Your task to perform on an android device: Add "razer thresher" to the cart on bestbuy Image 0: 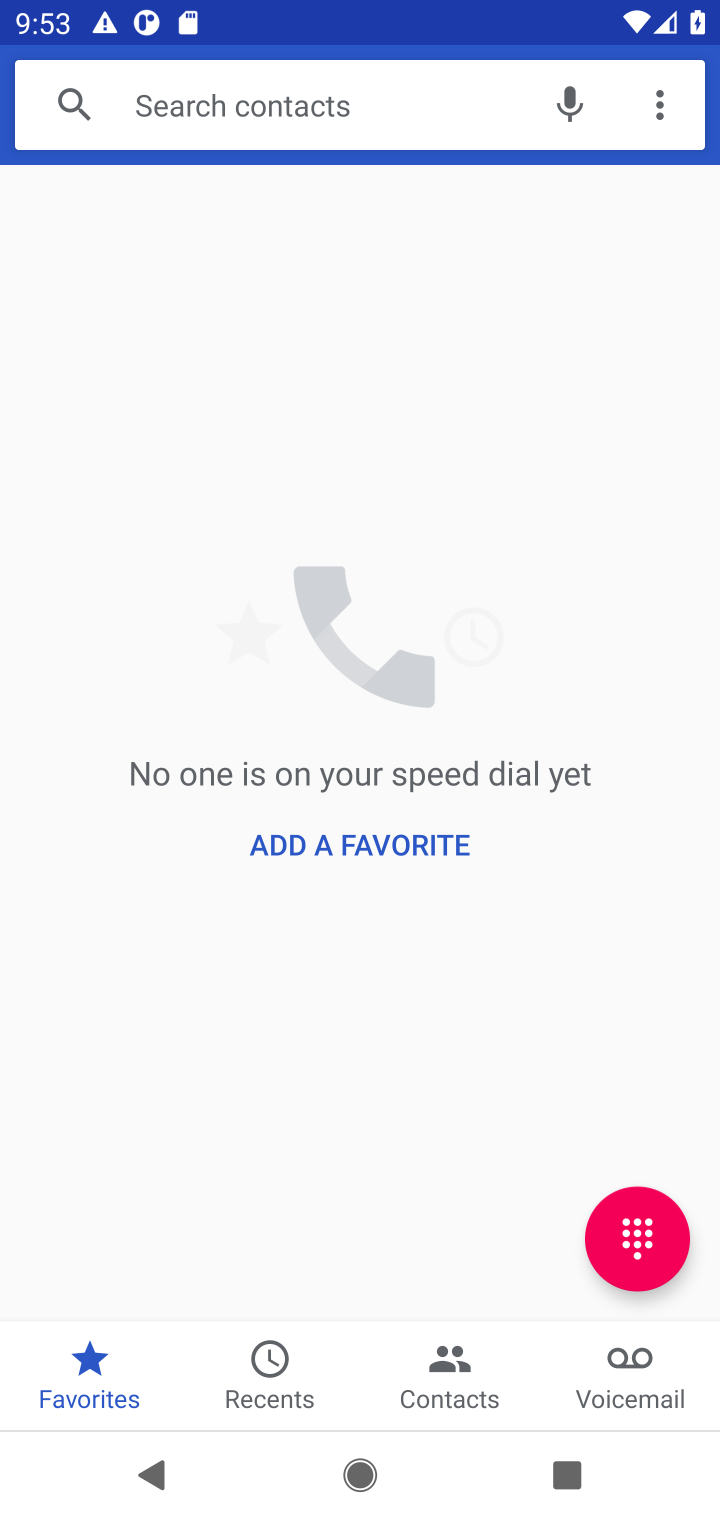
Step 0: press home button
Your task to perform on an android device: Add "razer thresher" to the cart on bestbuy Image 1: 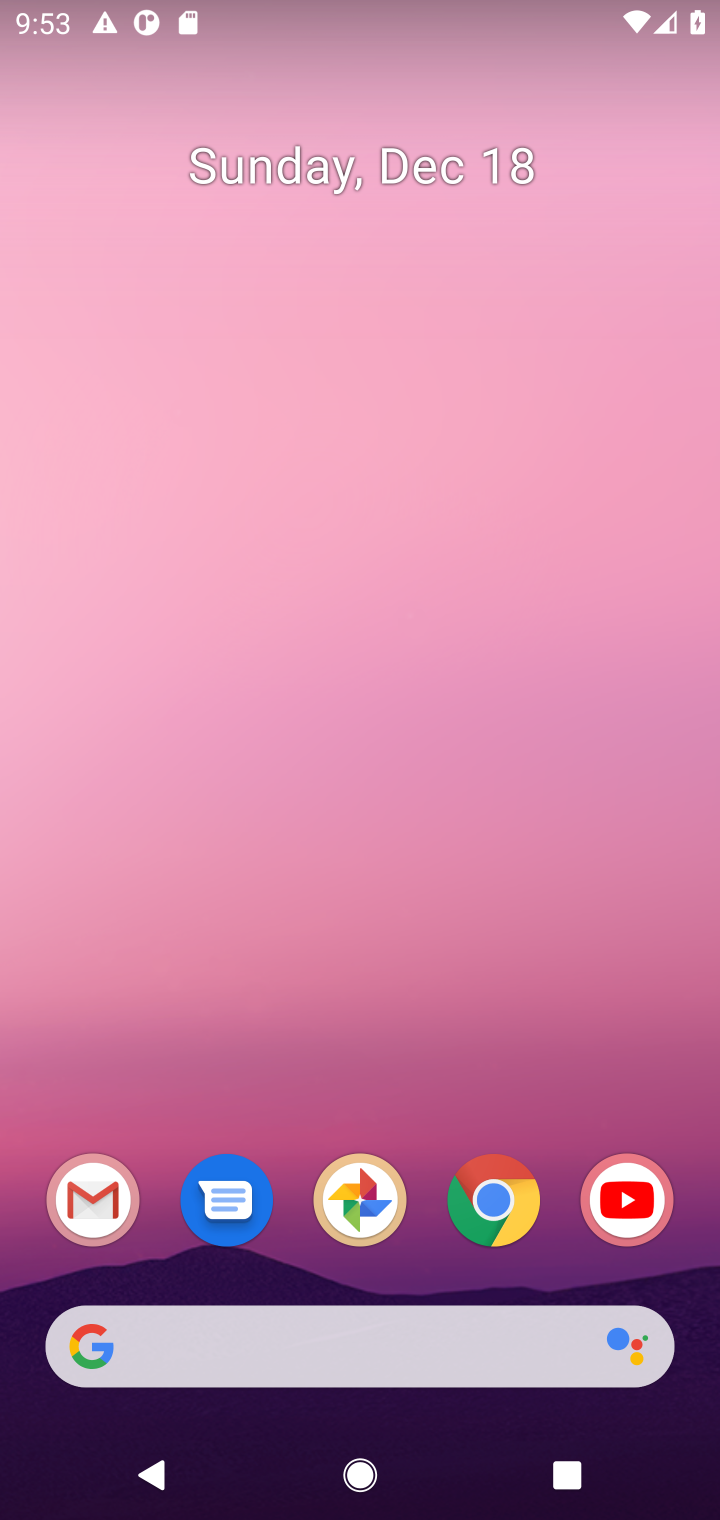
Step 1: click (495, 1197)
Your task to perform on an android device: Add "razer thresher" to the cart on bestbuy Image 2: 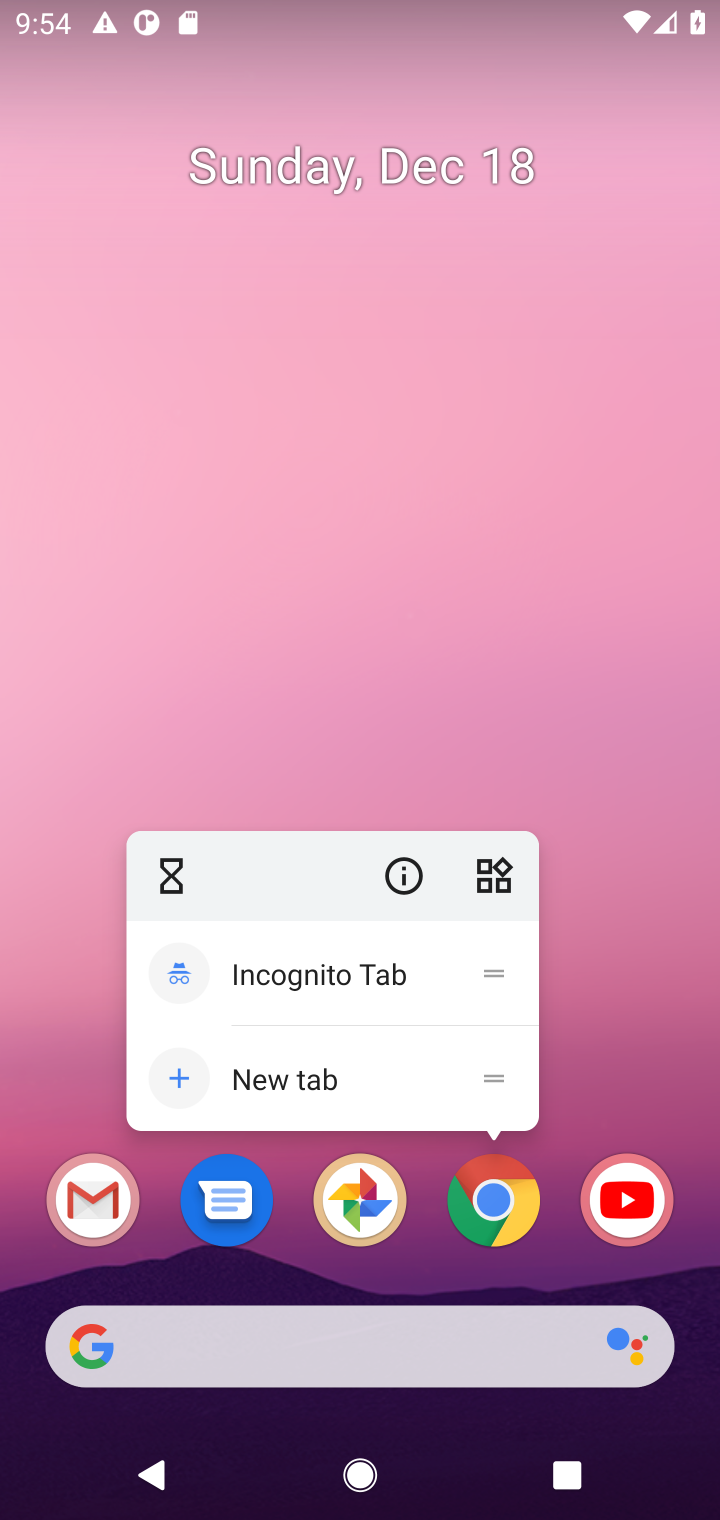
Step 2: click (495, 1197)
Your task to perform on an android device: Add "razer thresher" to the cart on bestbuy Image 3: 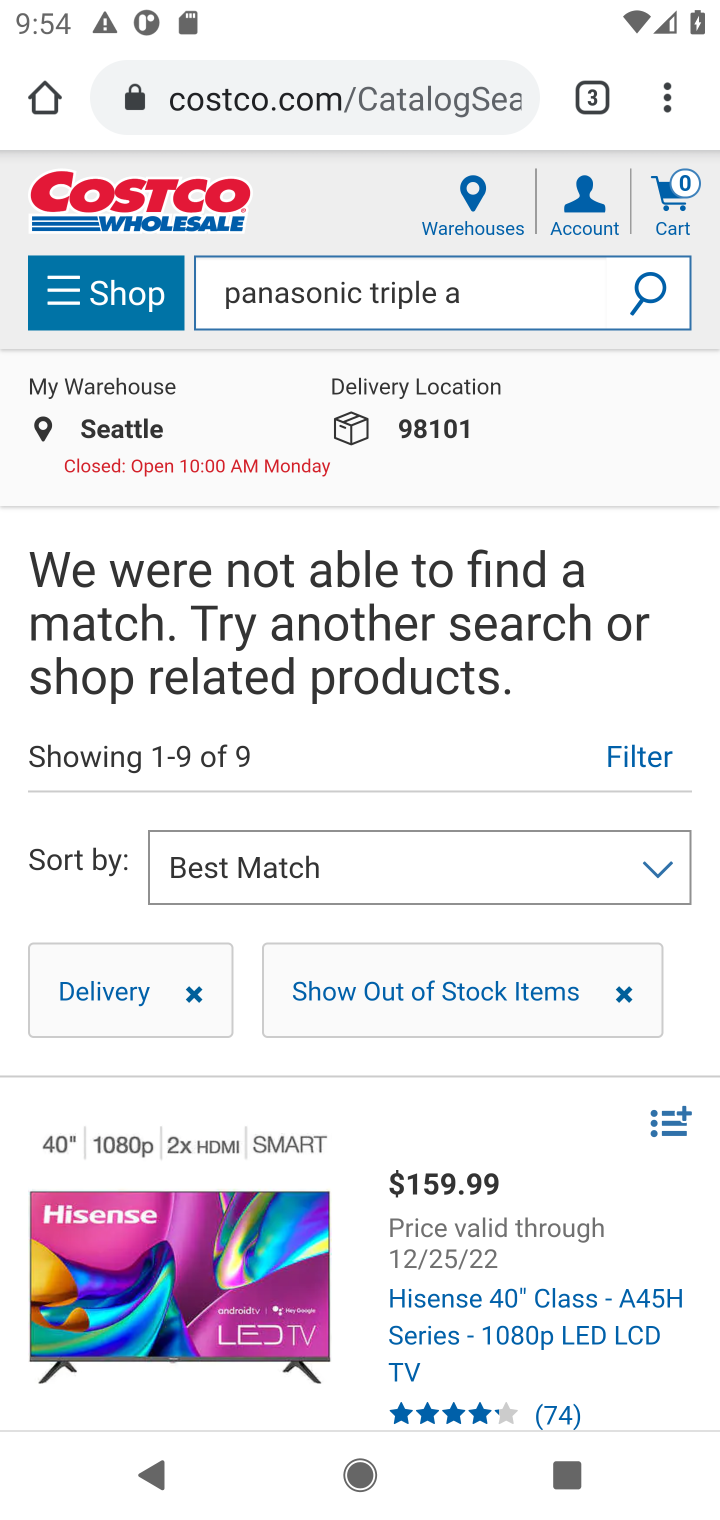
Step 3: click (255, 107)
Your task to perform on an android device: Add "razer thresher" to the cart on bestbuy Image 4: 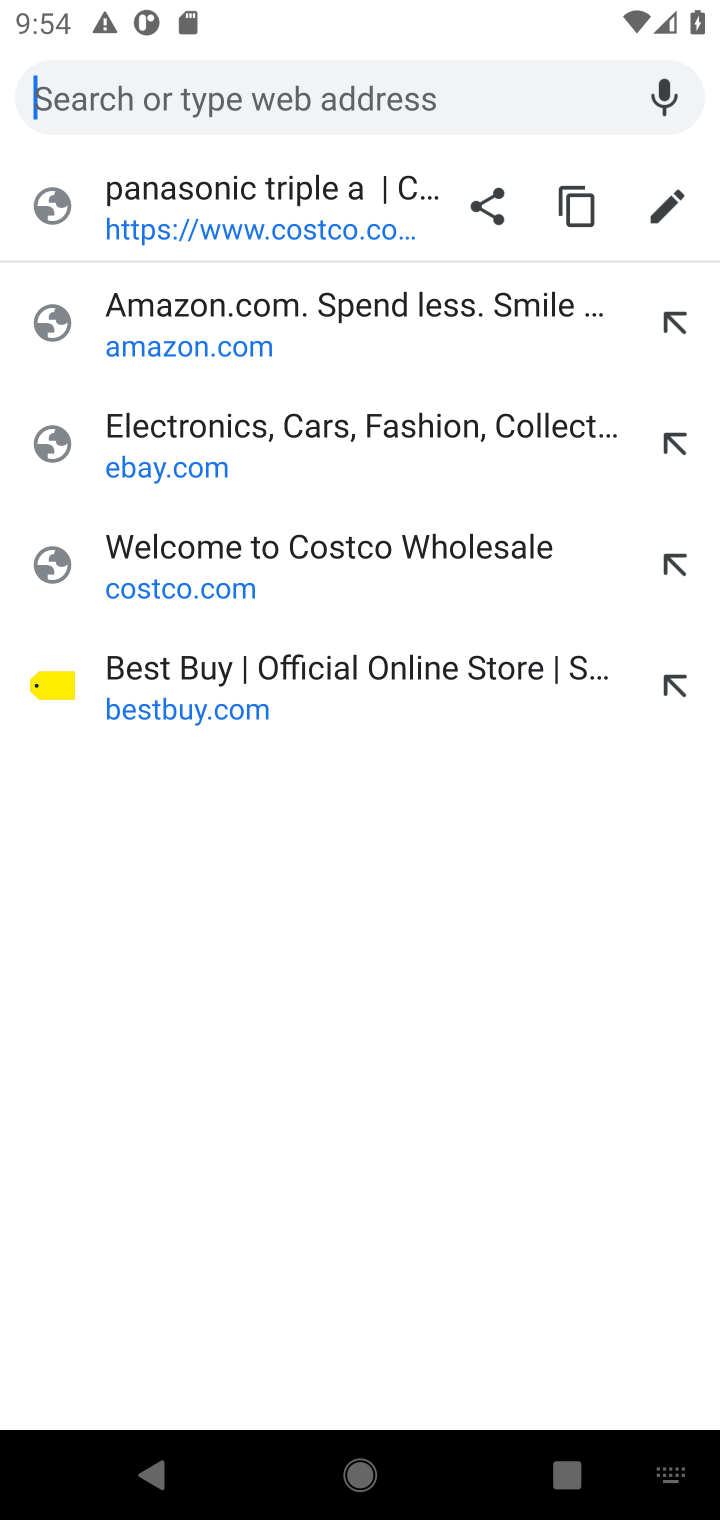
Step 4: click (183, 673)
Your task to perform on an android device: Add "razer thresher" to the cart on bestbuy Image 5: 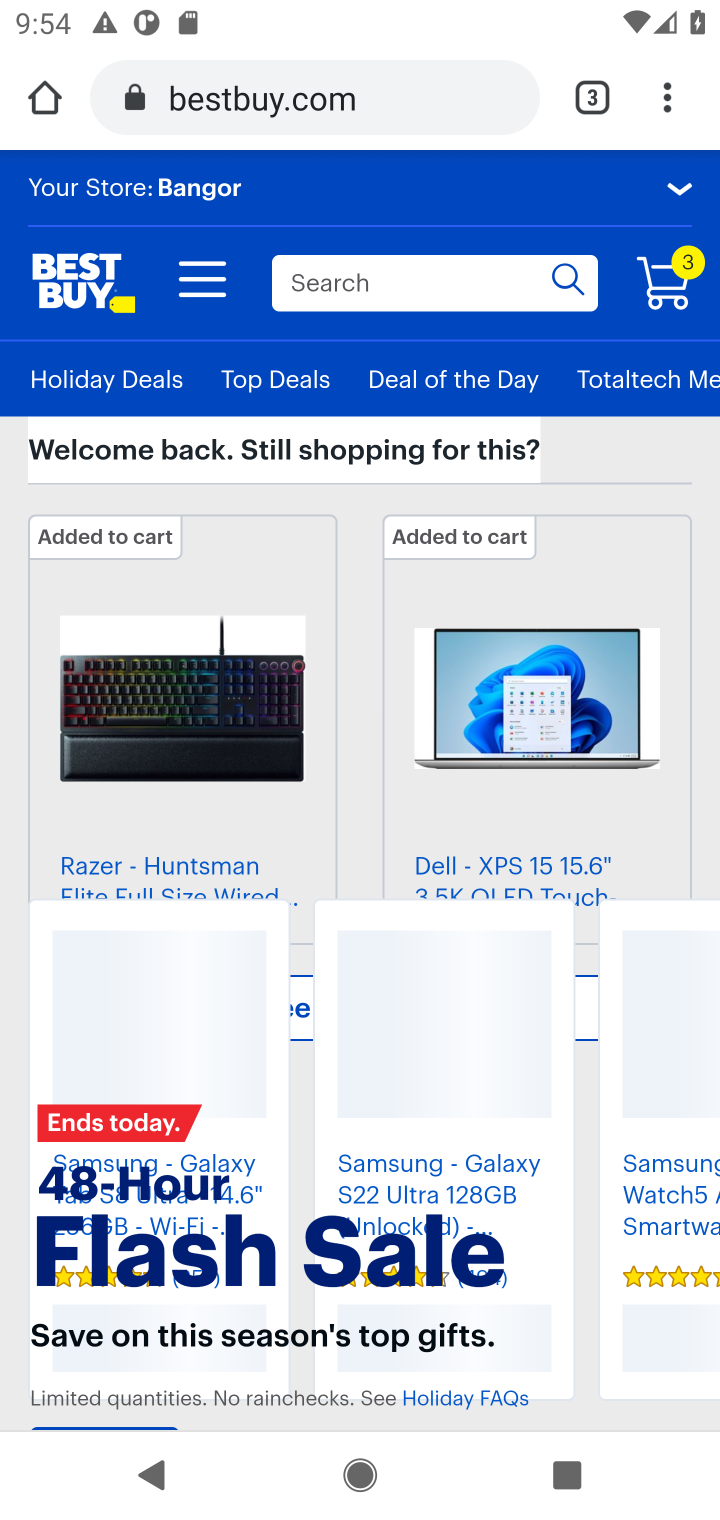
Step 5: click (346, 290)
Your task to perform on an android device: Add "razer thresher" to the cart on bestbuy Image 6: 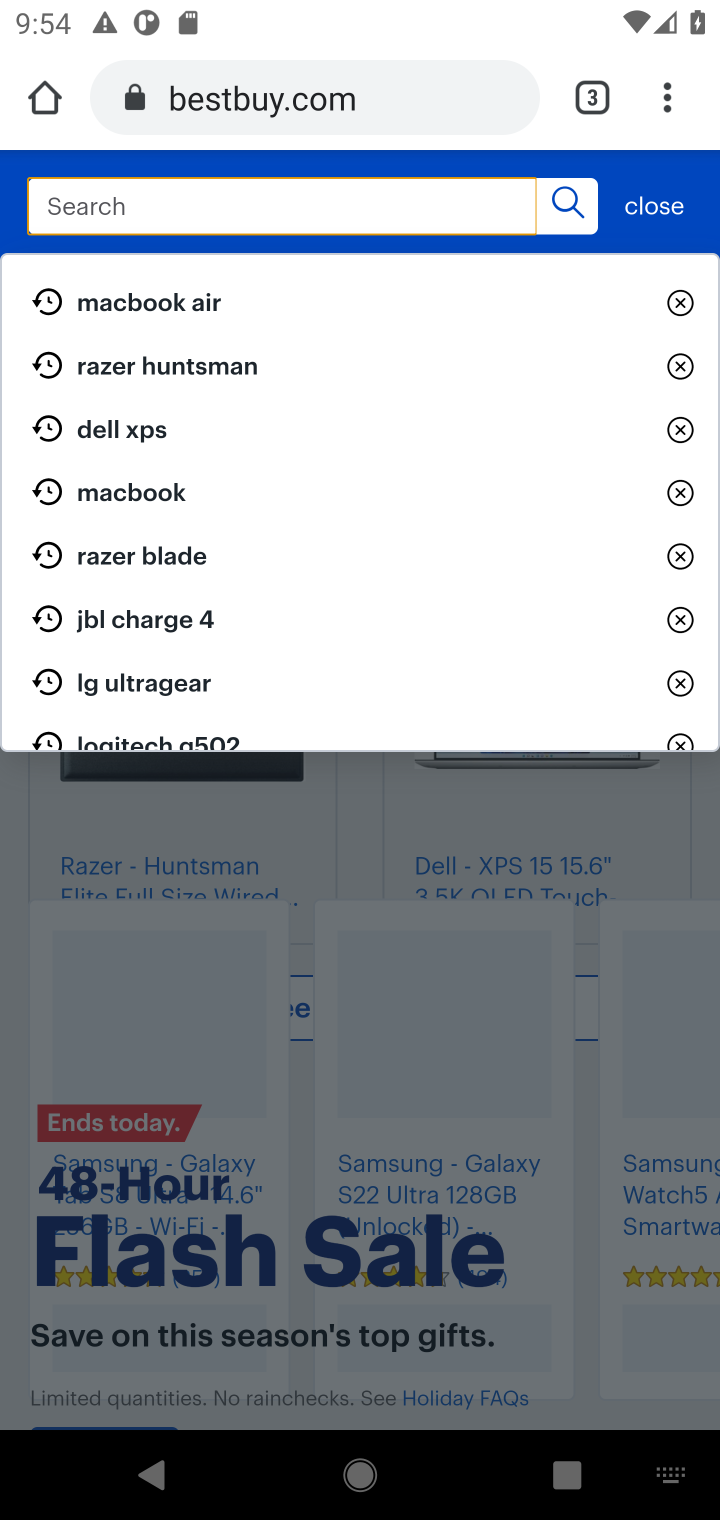
Step 6: type "razer thresher"
Your task to perform on an android device: Add "razer thresher" to the cart on bestbuy Image 7: 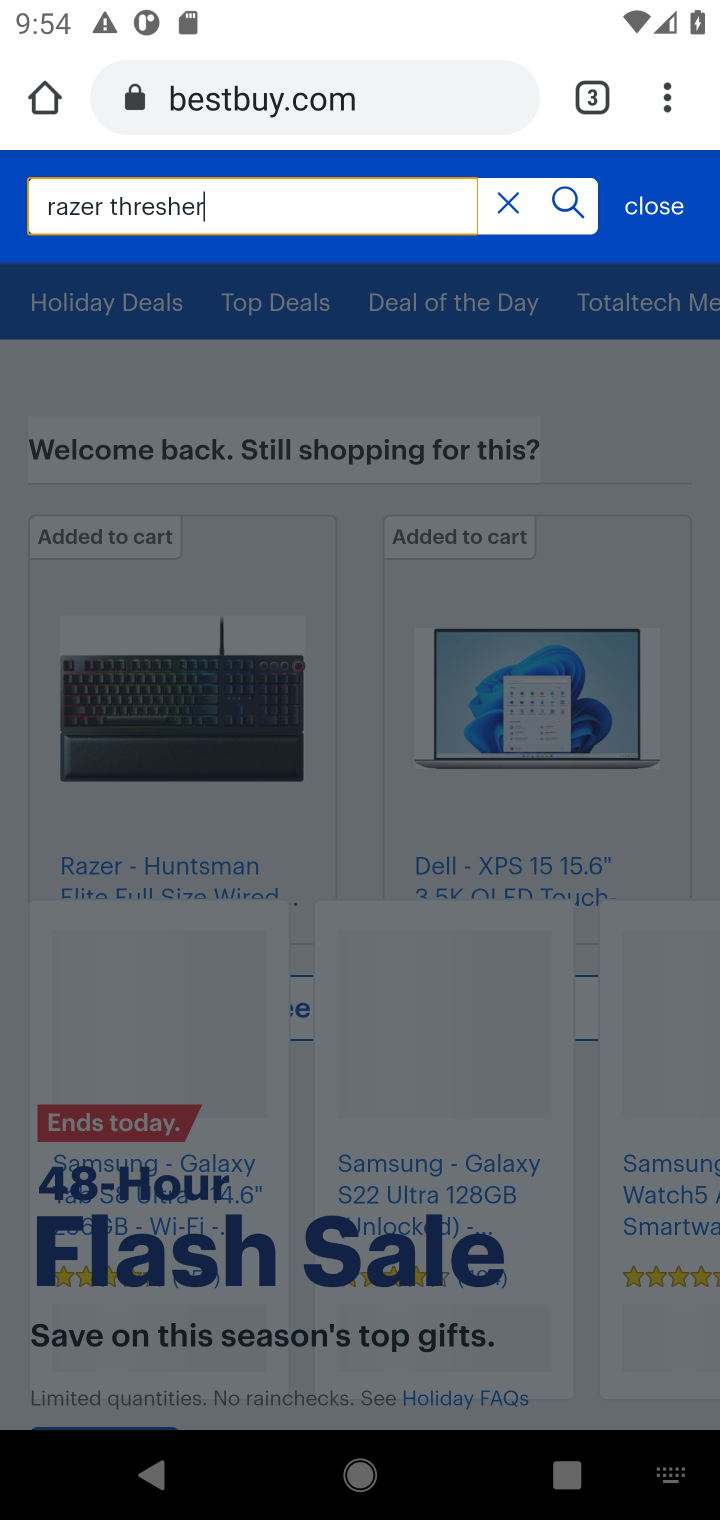
Step 7: click (563, 206)
Your task to perform on an android device: Add "razer thresher" to the cart on bestbuy Image 8: 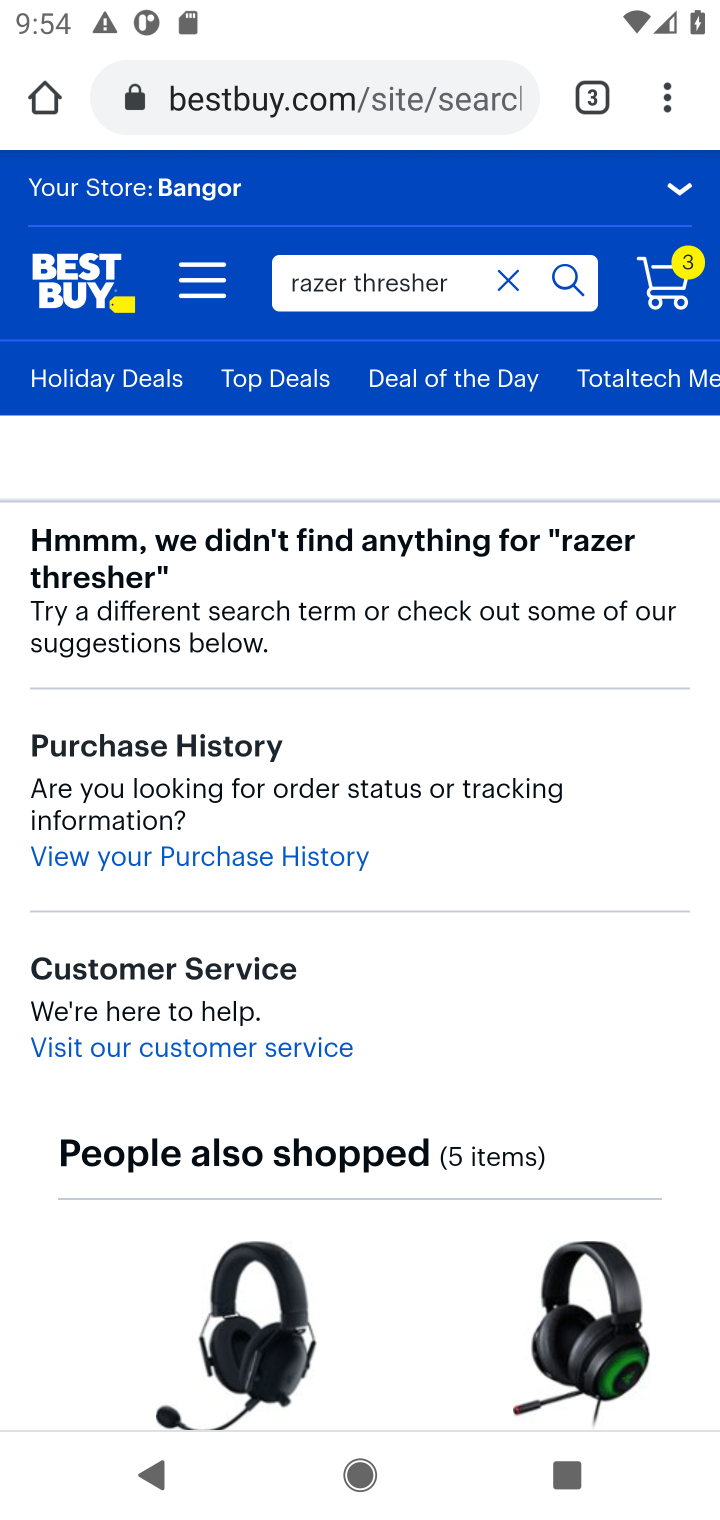
Step 8: task complete